Your task to perform on an android device: turn notification dots on Image 0: 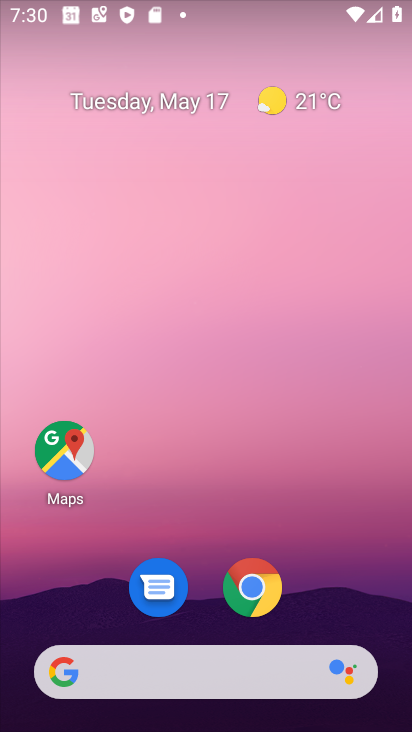
Step 0: drag from (371, 591) to (375, 211)
Your task to perform on an android device: turn notification dots on Image 1: 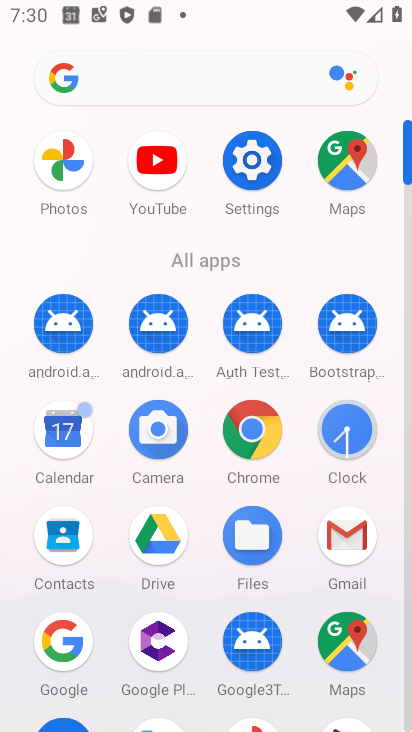
Step 1: click (269, 179)
Your task to perform on an android device: turn notification dots on Image 2: 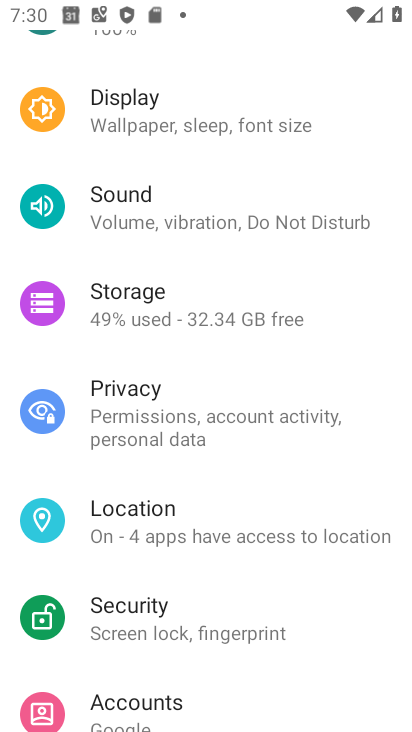
Step 2: drag from (357, 631) to (361, 498)
Your task to perform on an android device: turn notification dots on Image 3: 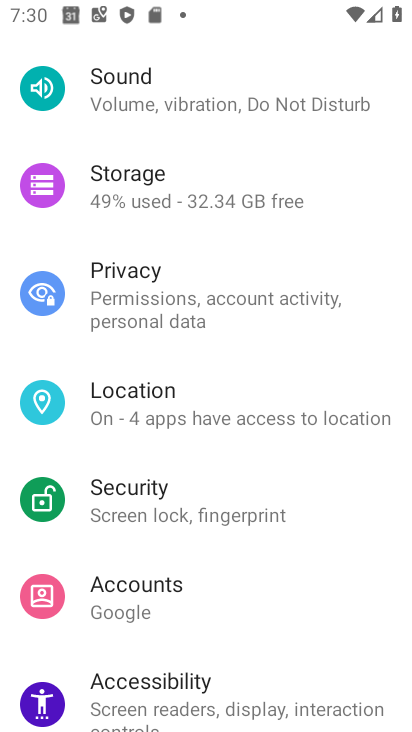
Step 3: drag from (362, 657) to (365, 505)
Your task to perform on an android device: turn notification dots on Image 4: 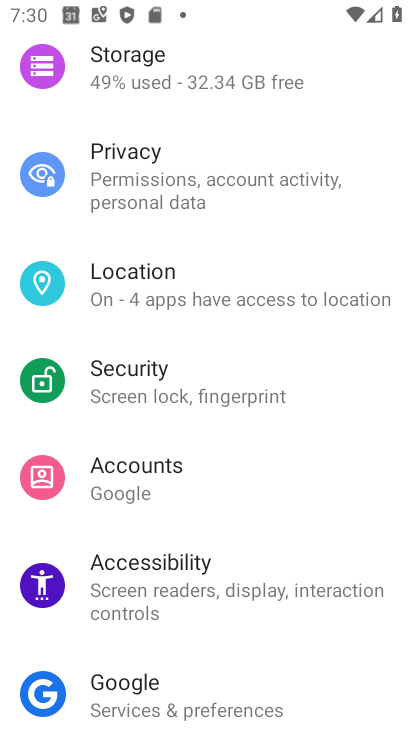
Step 4: drag from (361, 650) to (358, 478)
Your task to perform on an android device: turn notification dots on Image 5: 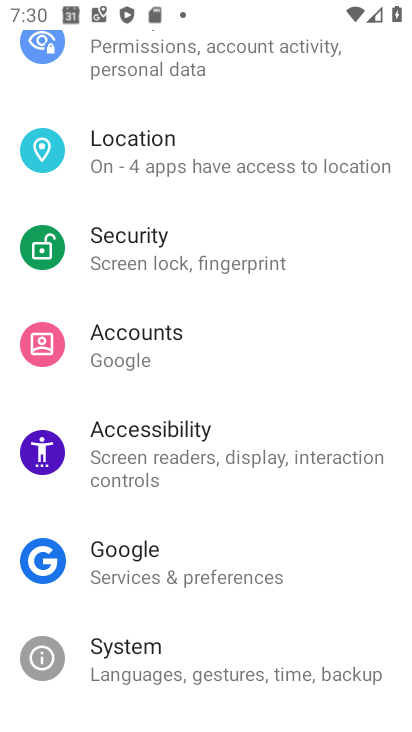
Step 5: drag from (345, 637) to (351, 494)
Your task to perform on an android device: turn notification dots on Image 6: 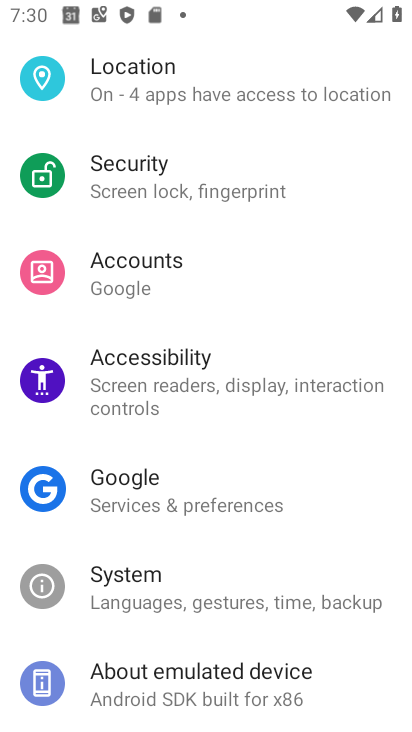
Step 6: drag from (349, 677) to (364, 511)
Your task to perform on an android device: turn notification dots on Image 7: 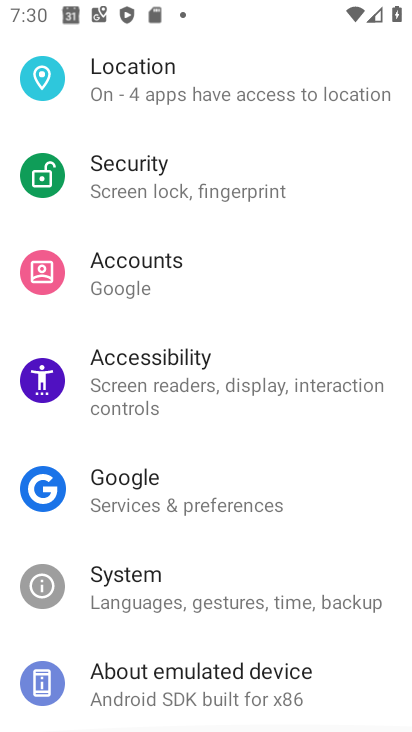
Step 7: drag from (368, 474) to (369, 568)
Your task to perform on an android device: turn notification dots on Image 8: 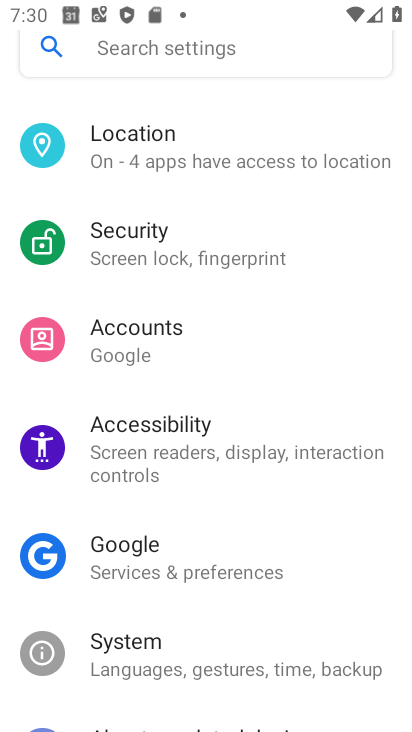
Step 8: drag from (375, 402) to (377, 543)
Your task to perform on an android device: turn notification dots on Image 9: 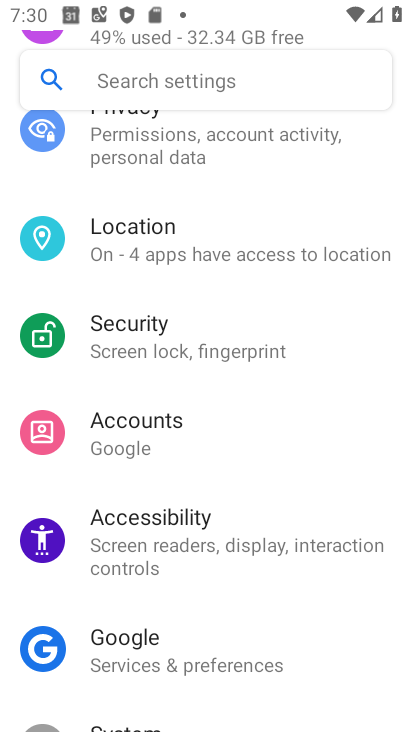
Step 9: drag from (367, 375) to (361, 517)
Your task to perform on an android device: turn notification dots on Image 10: 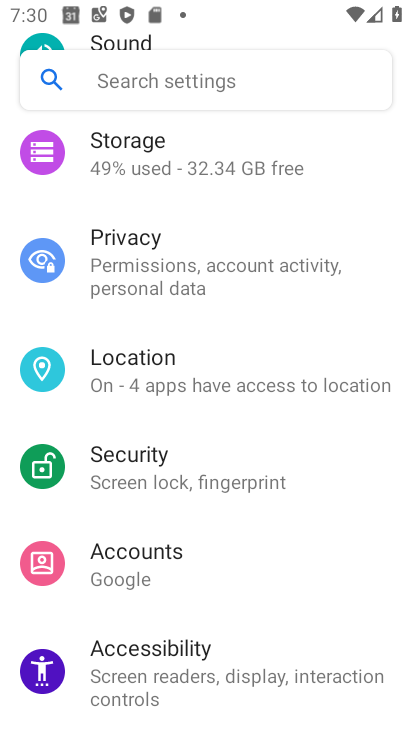
Step 10: drag from (355, 308) to (356, 449)
Your task to perform on an android device: turn notification dots on Image 11: 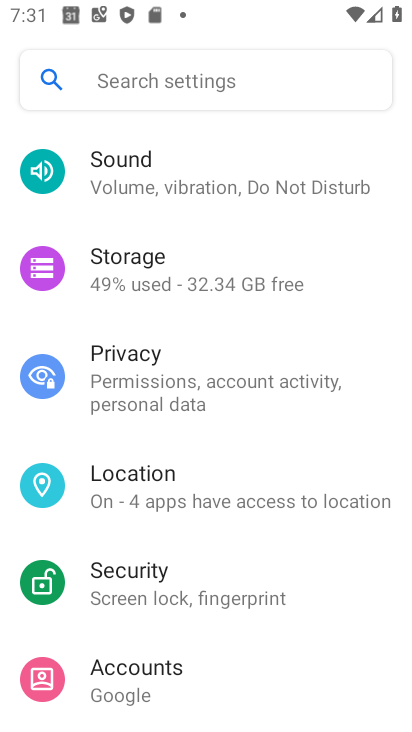
Step 11: drag from (365, 329) to (354, 458)
Your task to perform on an android device: turn notification dots on Image 12: 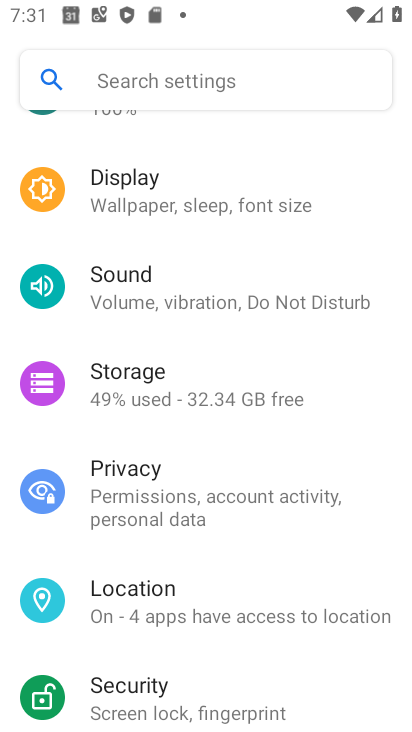
Step 12: drag from (362, 344) to (367, 460)
Your task to perform on an android device: turn notification dots on Image 13: 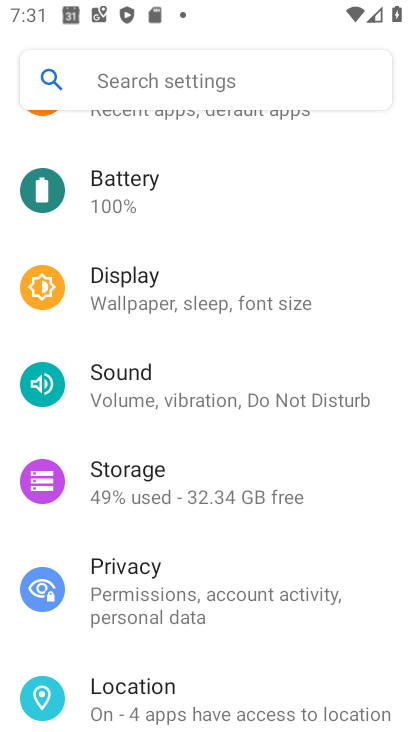
Step 13: drag from (365, 315) to (371, 444)
Your task to perform on an android device: turn notification dots on Image 14: 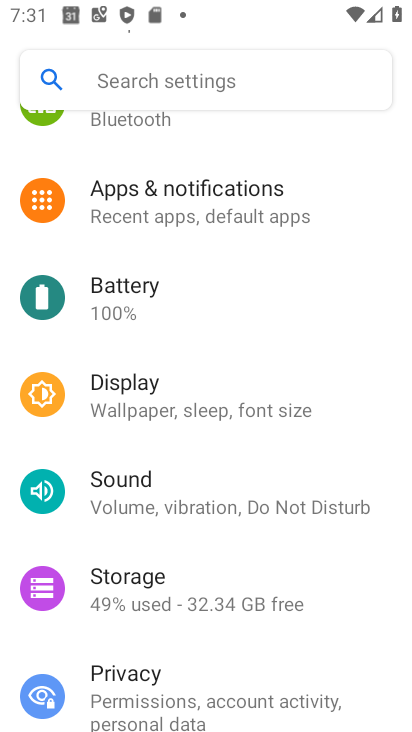
Step 14: drag from (376, 277) to (364, 401)
Your task to perform on an android device: turn notification dots on Image 15: 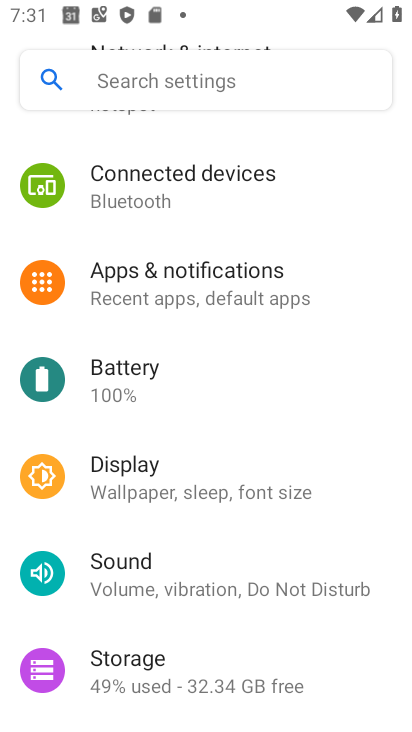
Step 15: drag from (369, 224) to (357, 399)
Your task to perform on an android device: turn notification dots on Image 16: 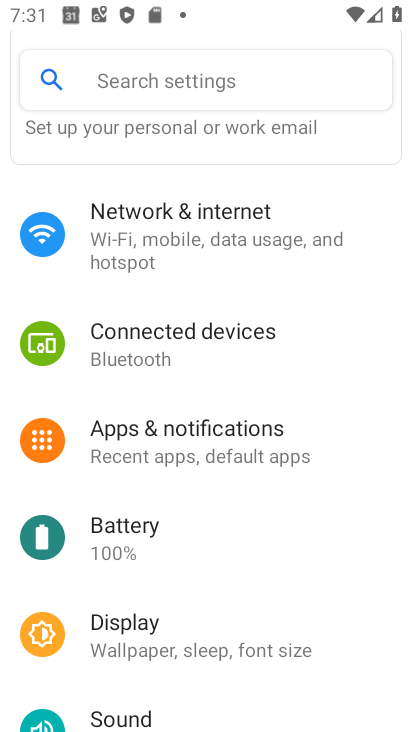
Step 16: click (287, 459)
Your task to perform on an android device: turn notification dots on Image 17: 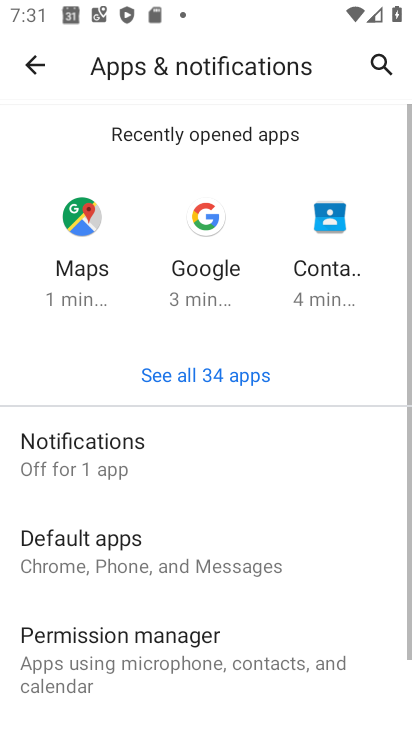
Step 17: drag from (316, 592) to (338, 457)
Your task to perform on an android device: turn notification dots on Image 18: 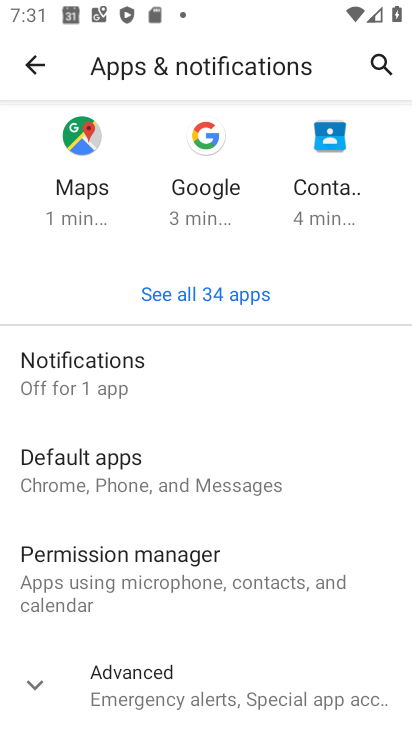
Step 18: drag from (316, 610) to (329, 446)
Your task to perform on an android device: turn notification dots on Image 19: 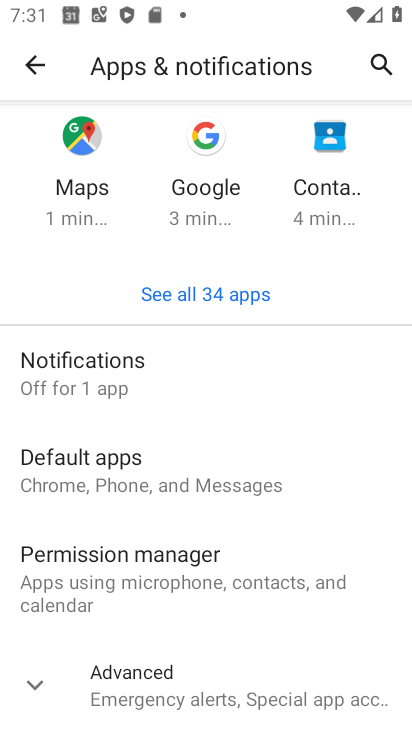
Step 19: click (116, 370)
Your task to perform on an android device: turn notification dots on Image 20: 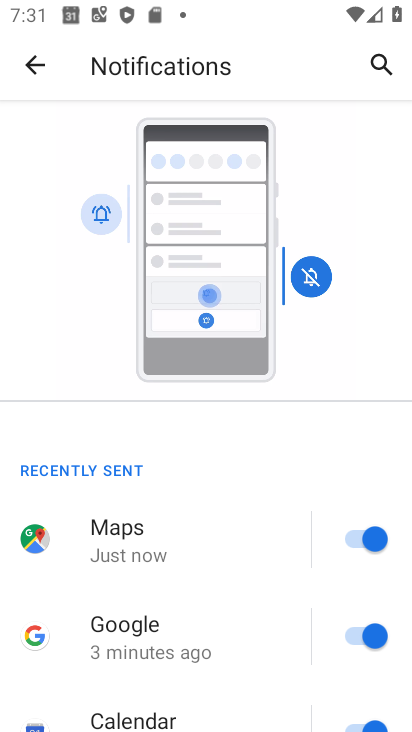
Step 20: drag from (291, 605) to (295, 500)
Your task to perform on an android device: turn notification dots on Image 21: 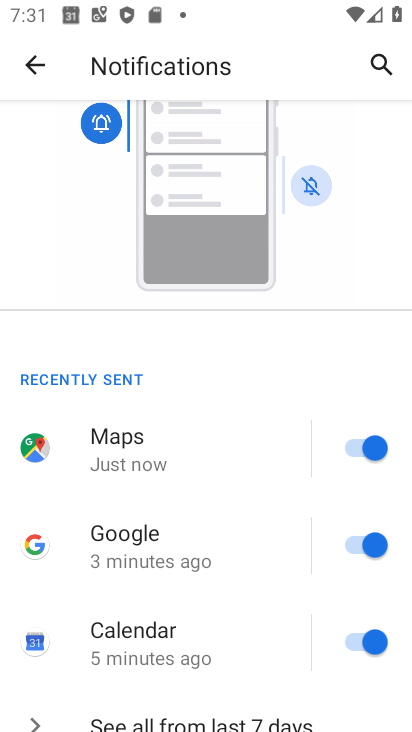
Step 21: drag from (279, 593) to (292, 449)
Your task to perform on an android device: turn notification dots on Image 22: 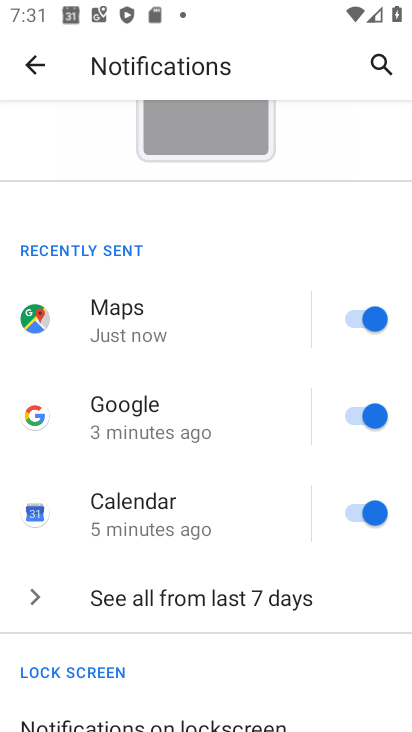
Step 22: drag from (281, 629) to (285, 511)
Your task to perform on an android device: turn notification dots on Image 23: 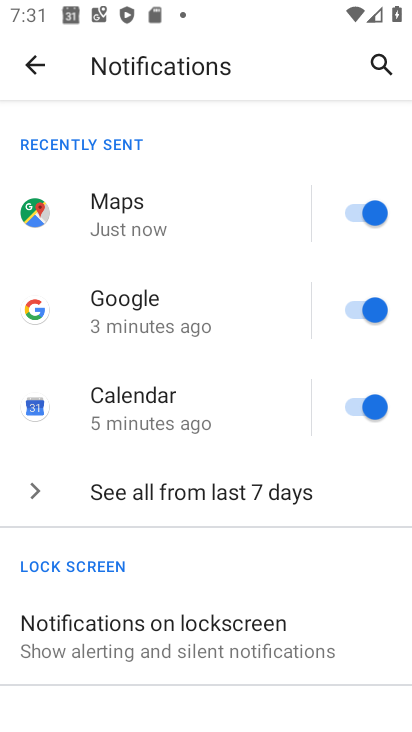
Step 23: drag from (303, 618) to (319, 490)
Your task to perform on an android device: turn notification dots on Image 24: 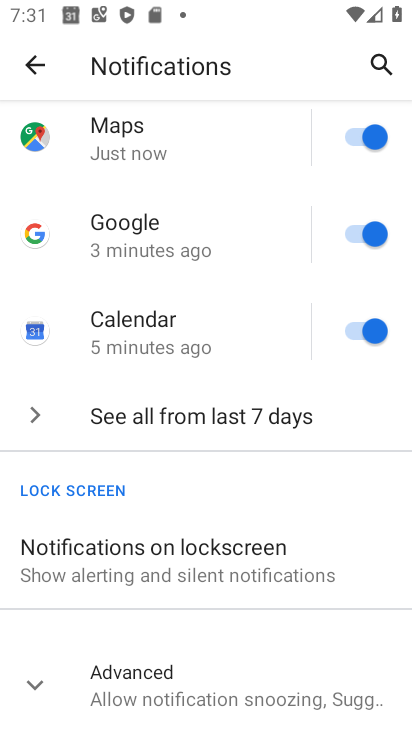
Step 24: drag from (319, 638) to (333, 484)
Your task to perform on an android device: turn notification dots on Image 25: 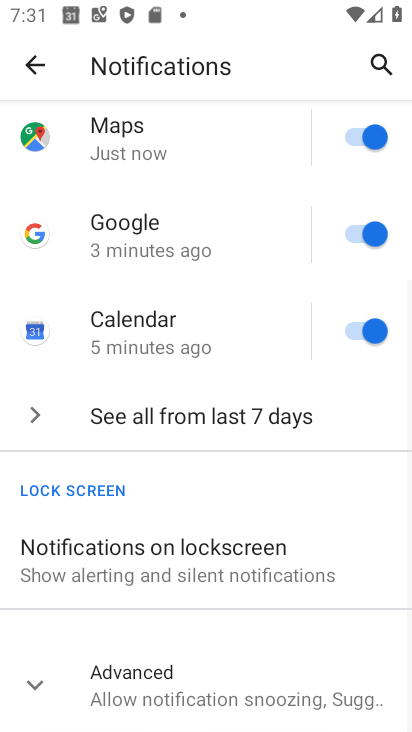
Step 25: click (306, 698)
Your task to perform on an android device: turn notification dots on Image 26: 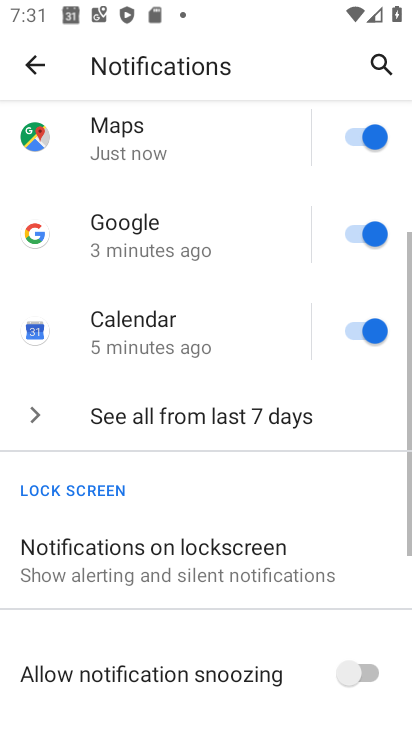
Step 26: task complete